Your task to perform on an android device: Play the last video I watched on Youtube Image 0: 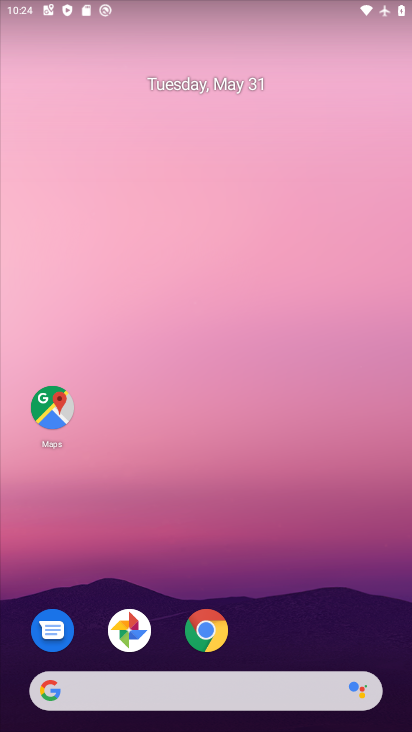
Step 0: drag from (274, 601) to (219, 255)
Your task to perform on an android device: Play the last video I watched on Youtube Image 1: 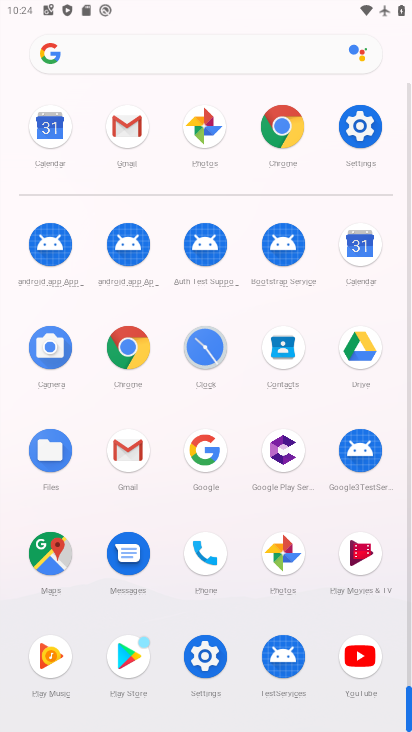
Step 1: click (366, 655)
Your task to perform on an android device: Play the last video I watched on Youtube Image 2: 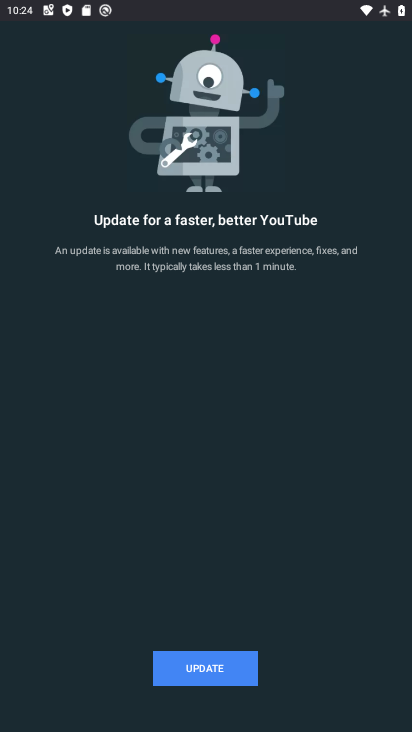
Step 2: task complete